Your task to perform on an android device: turn on sleep mode Image 0: 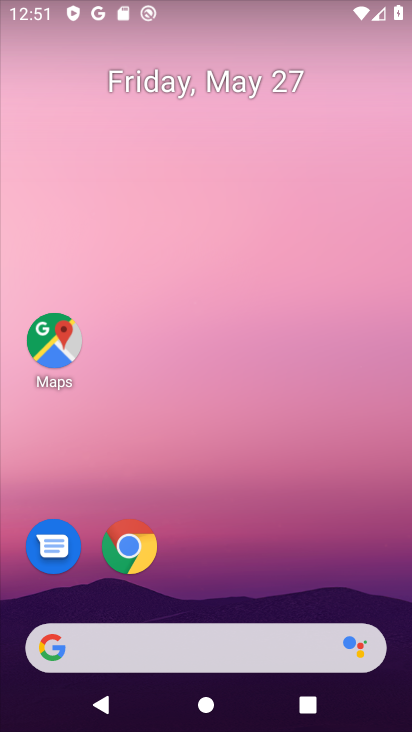
Step 0: drag from (267, 700) to (168, 276)
Your task to perform on an android device: turn on sleep mode Image 1: 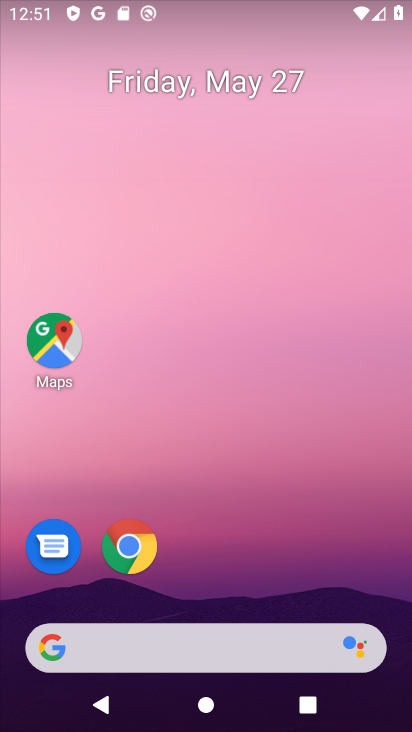
Step 1: drag from (245, 699) to (193, 296)
Your task to perform on an android device: turn on sleep mode Image 2: 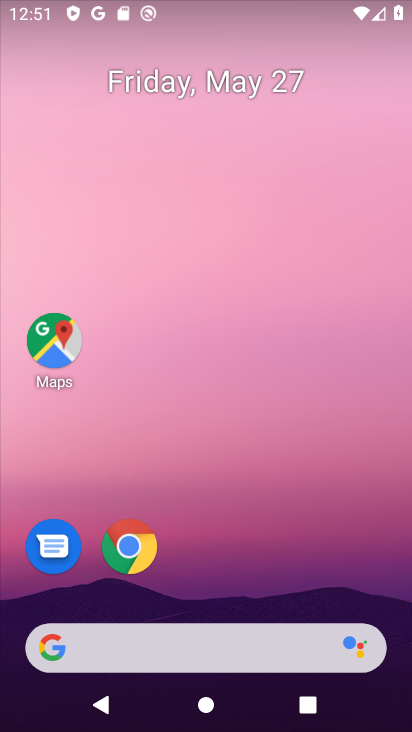
Step 2: drag from (256, 568) to (169, 186)
Your task to perform on an android device: turn on sleep mode Image 3: 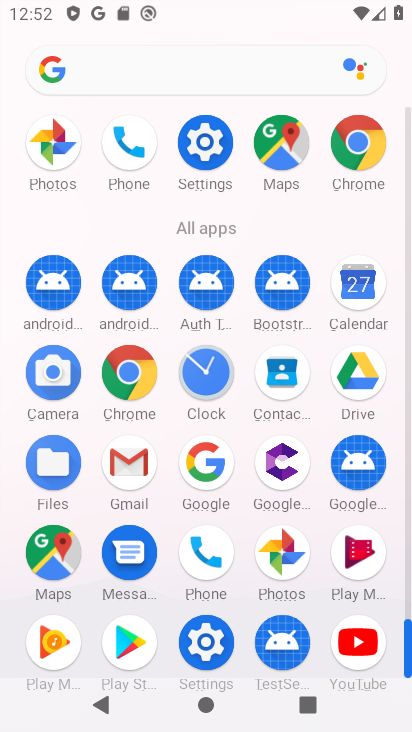
Step 3: click (203, 641)
Your task to perform on an android device: turn on sleep mode Image 4: 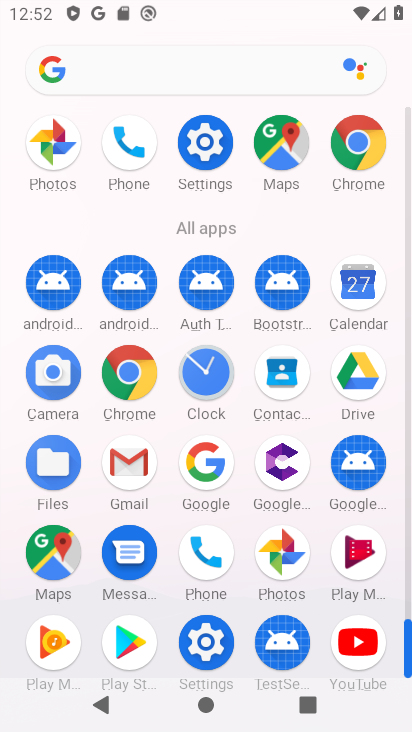
Step 4: click (203, 641)
Your task to perform on an android device: turn on sleep mode Image 5: 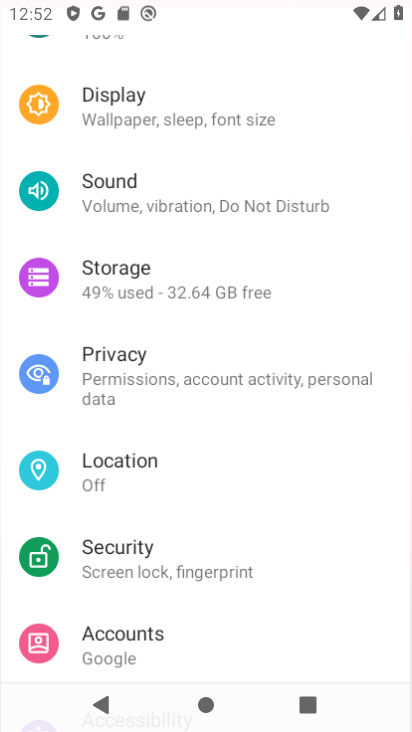
Step 5: click (203, 641)
Your task to perform on an android device: turn on sleep mode Image 6: 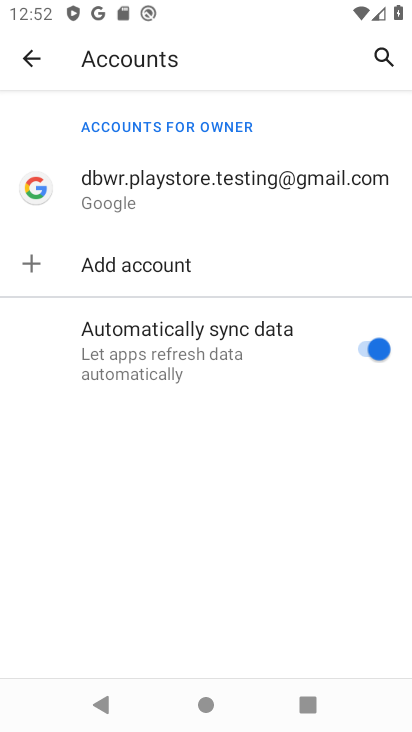
Step 6: click (24, 46)
Your task to perform on an android device: turn on sleep mode Image 7: 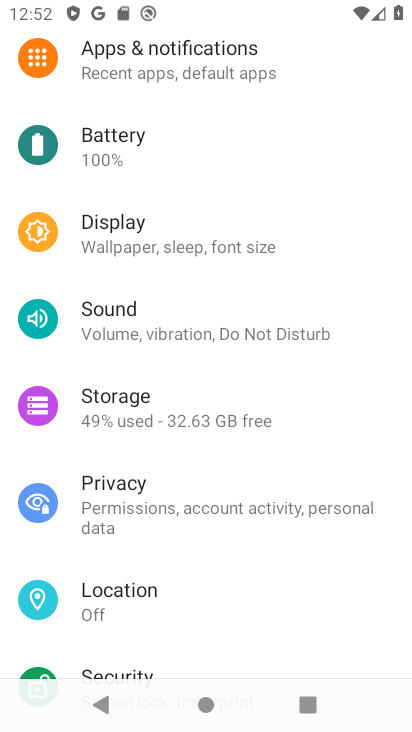
Step 7: click (125, 228)
Your task to perform on an android device: turn on sleep mode Image 8: 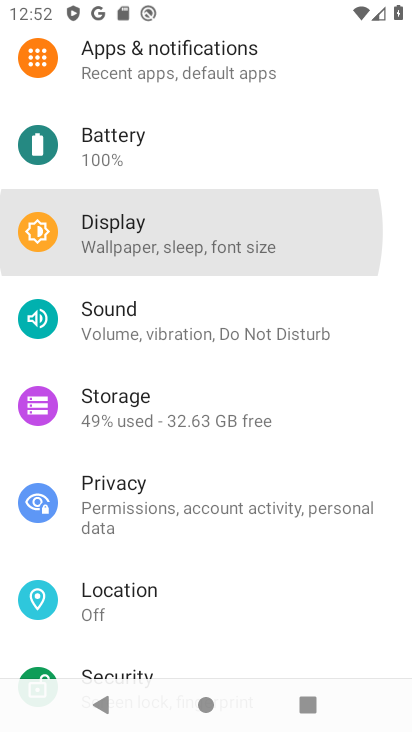
Step 8: click (126, 229)
Your task to perform on an android device: turn on sleep mode Image 9: 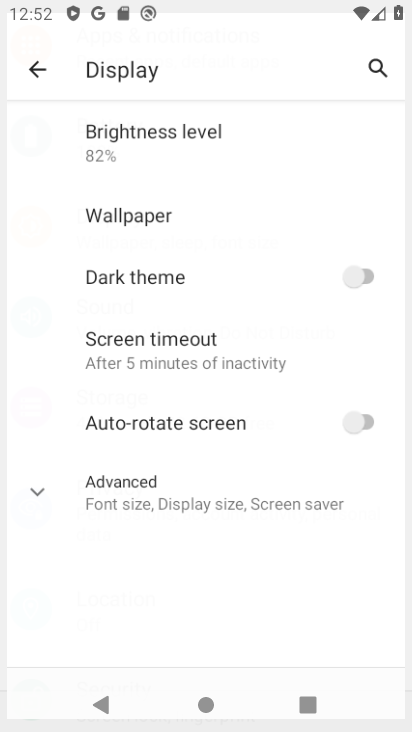
Step 9: click (126, 229)
Your task to perform on an android device: turn on sleep mode Image 10: 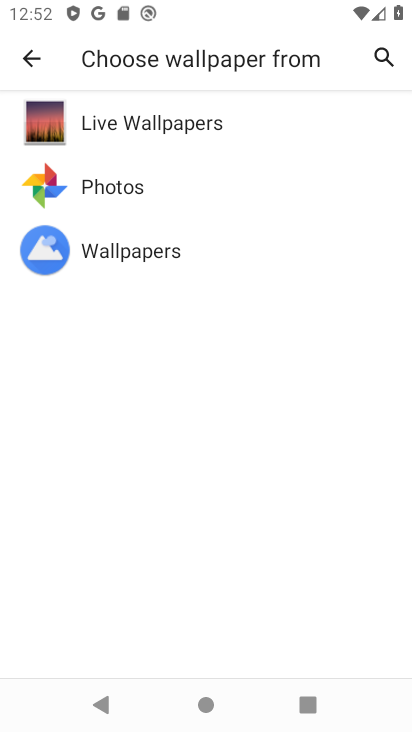
Step 10: click (158, 348)
Your task to perform on an android device: turn on sleep mode Image 11: 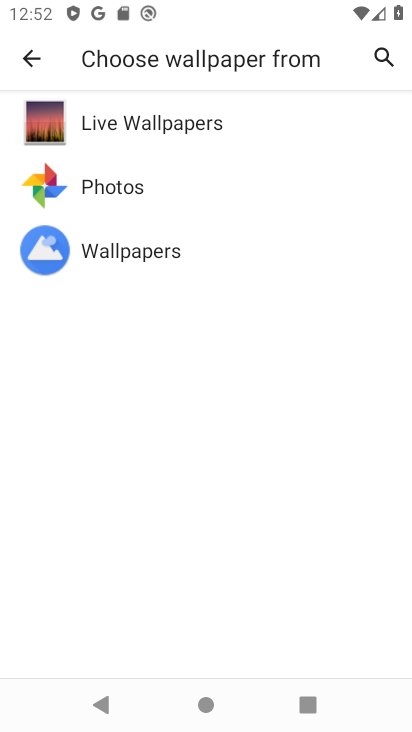
Step 11: task complete